Your task to perform on an android device: toggle sleep mode Image 0: 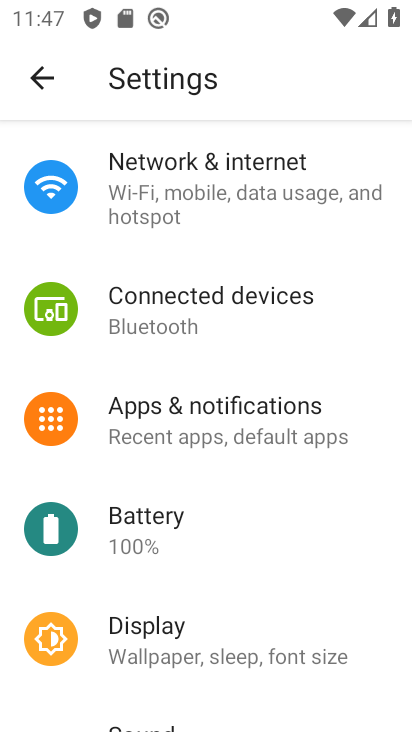
Step 0: drag from (321, 620) to (329, 219)
Your task to perform on an android device: toggle sleep mode Image 1: 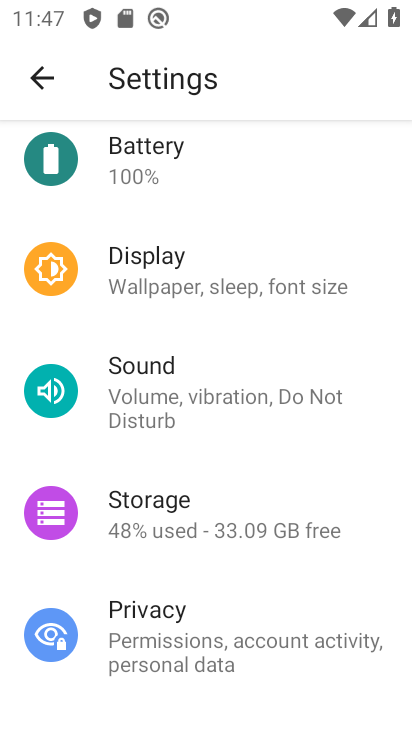
Step 1: click (222, 289)
Your task to perform on an android device: toggle sleep mode Image 2: 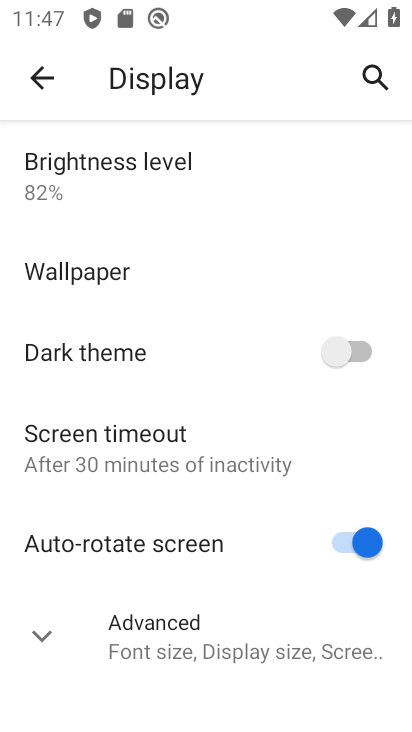
Step 2: click (271, 633)
Your task to perform on an android device: toggle sleep mode Image 3: 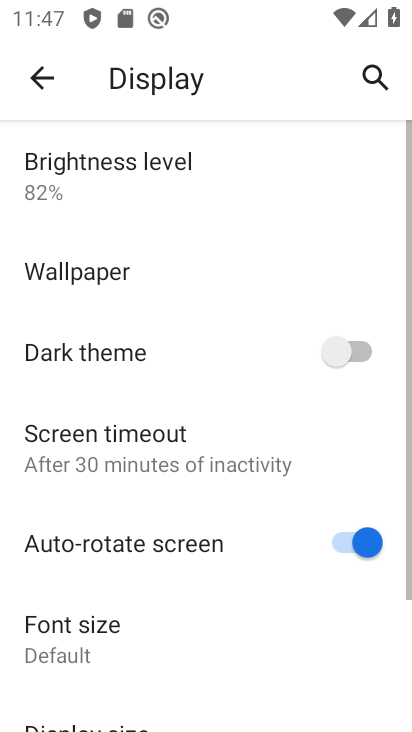
Step 3: task complete